Your task to perform on an android device: Turn on the flashlight Image 0: 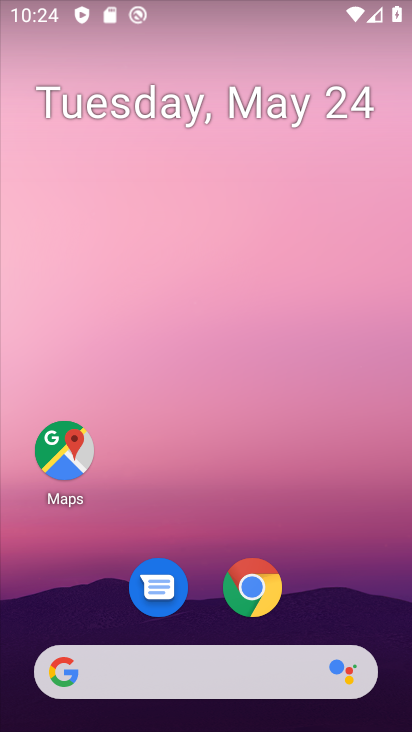
Step 0: drag from (291, 2) to (343, 530)
Your task to perform on an android device: Turn on the flashlight Image 1: 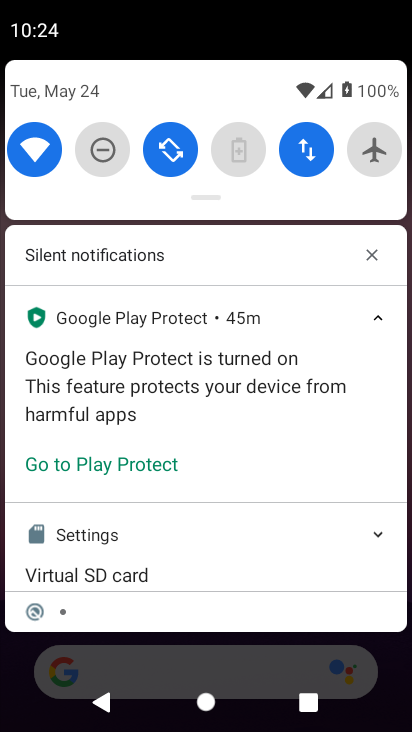
Step 1: task complete